Your task to perform on an android device: turn on location history Image 0: 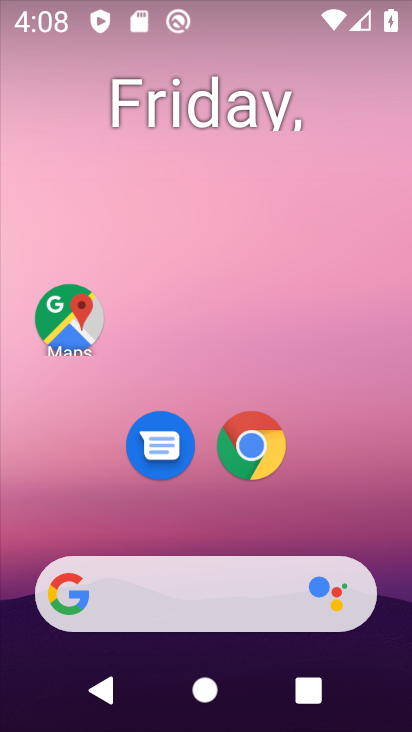
Step 0: drag from (327, 519) to (326, 156)
Your task to perform on an android device: turn on location history Image 1: 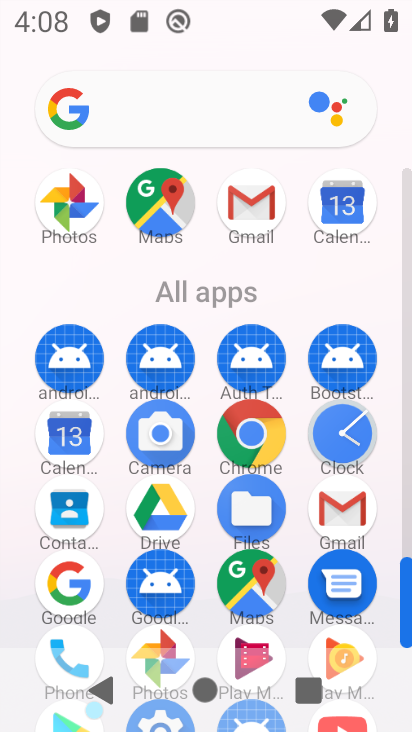
Step 1: drag from (327, 536) to (273, 74)
Your task to perform on an android device: turn on location history Image 2: 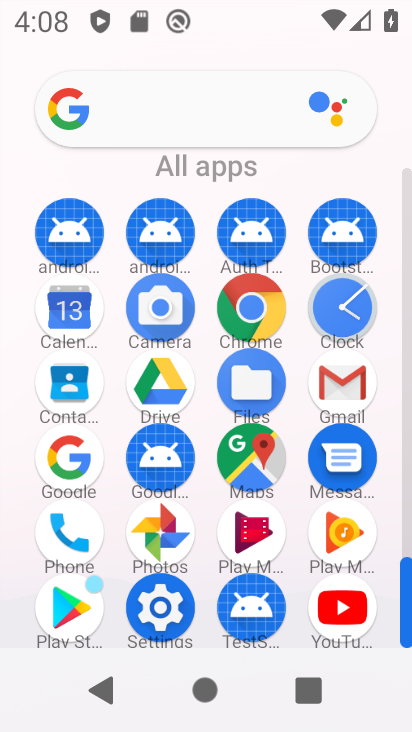
Step 2: click (169, 628)
Your task to perform on an android device: turn on location history Image 3: 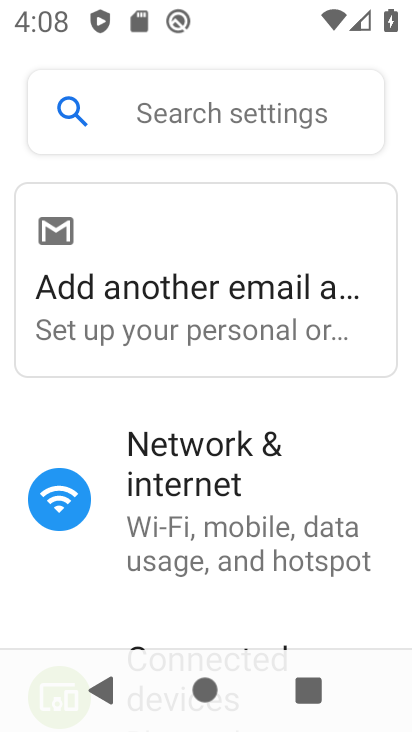
Step 3: drag from (189, 534) to (228, 115)
Your task to perform on an android device: turn on location history Image 4: 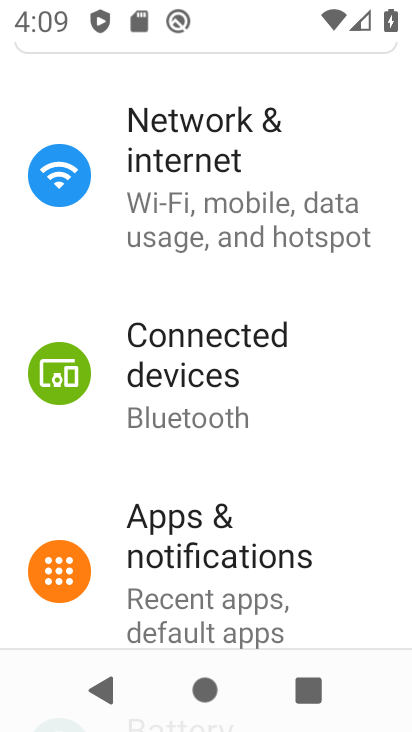
Step 4: drag from (283, 489) to (290, 67)
Your task to perform on an android device: turn on location history Image 5: 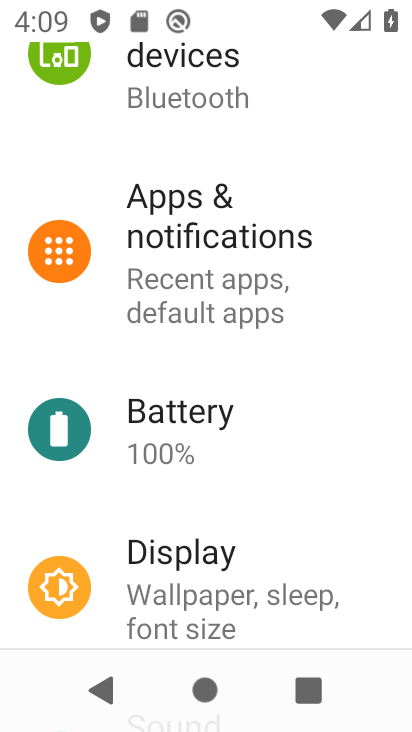
Step 5: drag from (230, 473) to (244, 214)
Your task to perform on an android device: turn on location history Image 6: 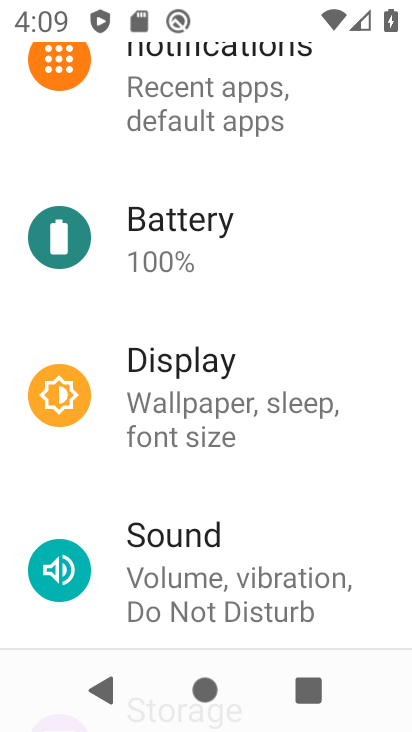
Step 6: drag from (207, 462) to (250, 45)
Your task to perform on an android device: turn on location history Image 7: 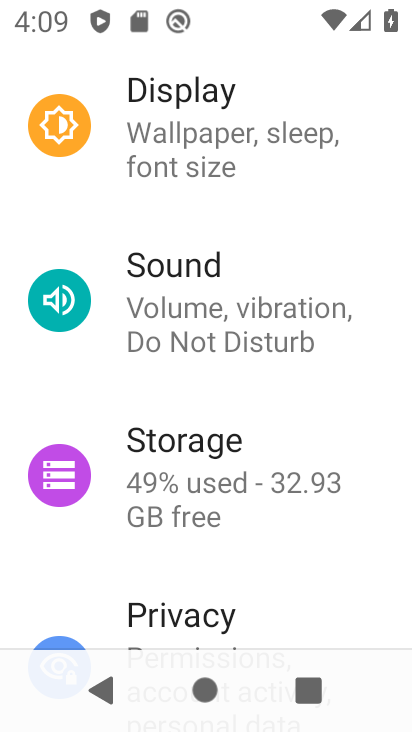
Step 7: drag from (173, 465) to (238, 148)
Your task to perform on an android device: turn on location history Image 8: 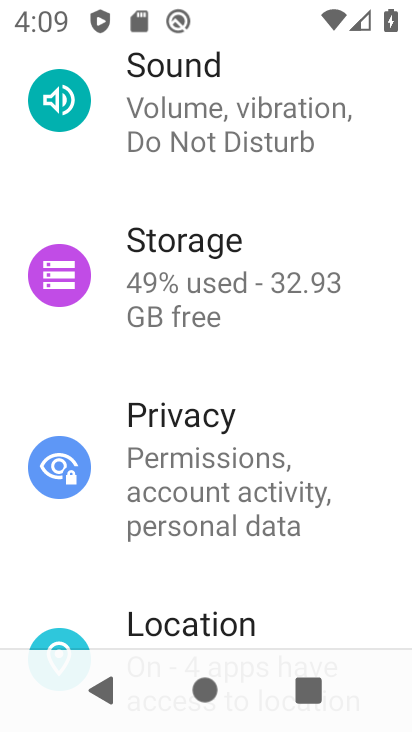
Step 8: click (179, 621)
Your task to perform on an android device: turn on location history Image 9: 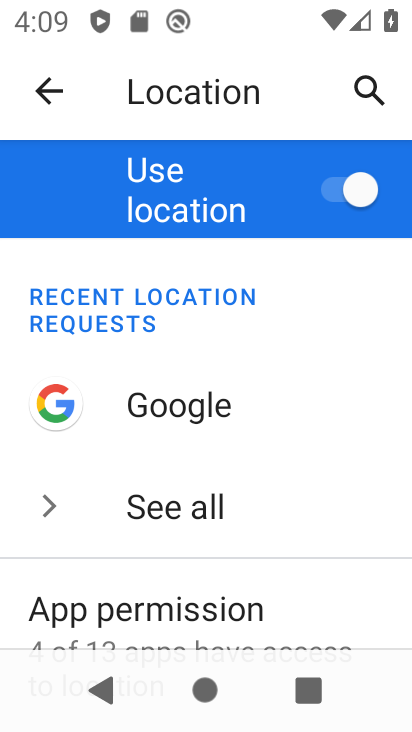
Step 9: drag from (301, 402) to (346, 76)
Your task to perform on an android device: turn on location history Image 10: 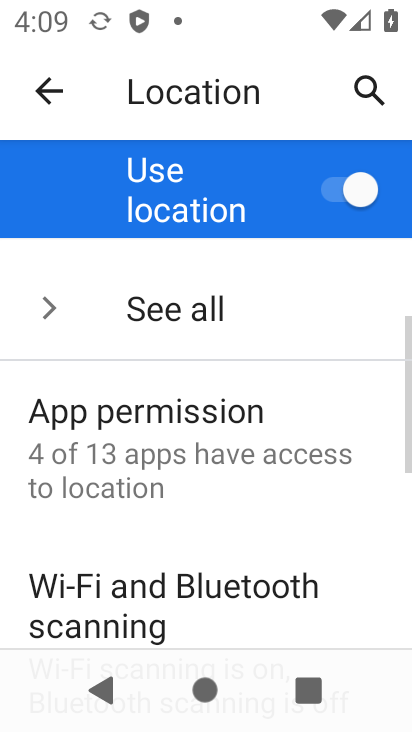
Step 10: drag from (180, 593) to (263, 171)
Your task to perform on an android device: turn on location history Image 11: 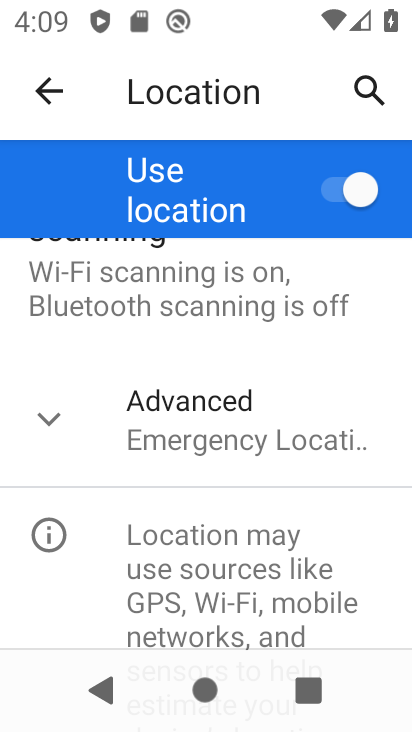
Step 11: drag from (158, 638) to (232, 361)
Your task to perform on an android device: turn on location history Image 12: 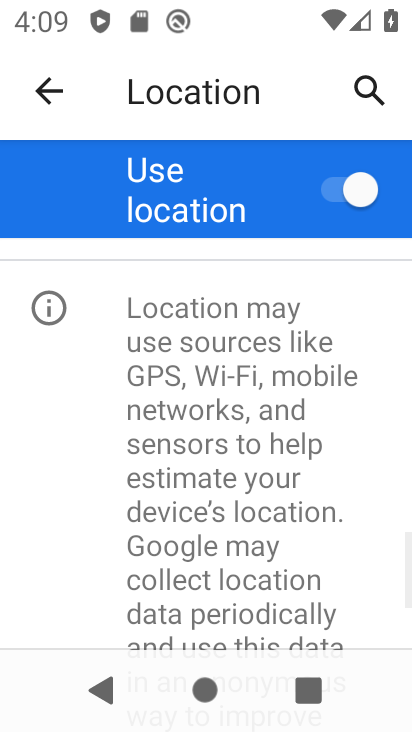
Step 12: drag from (197, 267) to (185, 474)
Your task to perform on an android device: turn on location history Image 13: 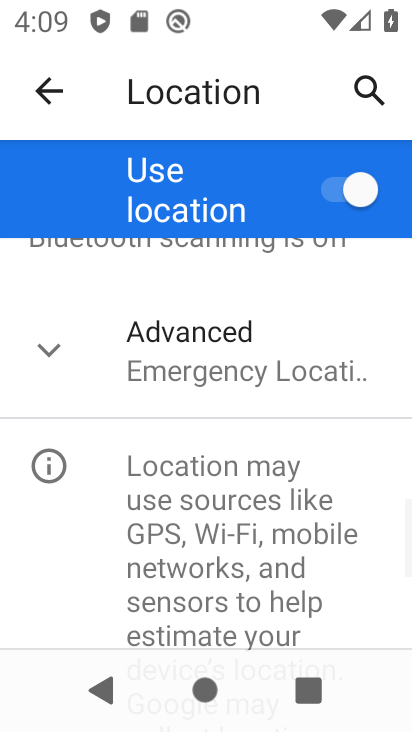
Step 13: click (202, 349)
Your task to perform on an android device: turn on location history Image 14: 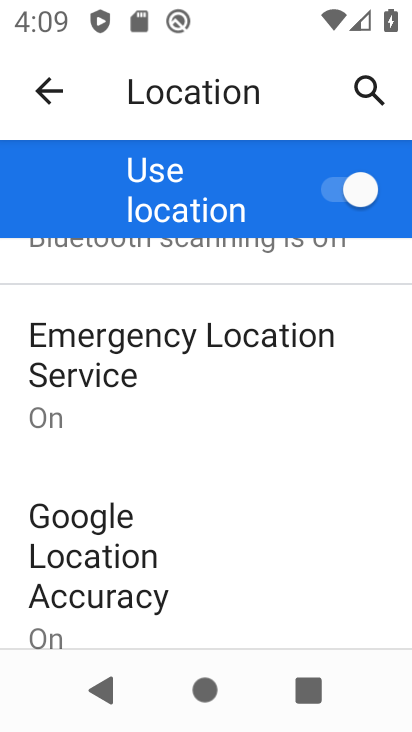
Step 14: drag from (215, 551) to (276, 231)
Your task to perform on an android device: turn on location history Image 15: 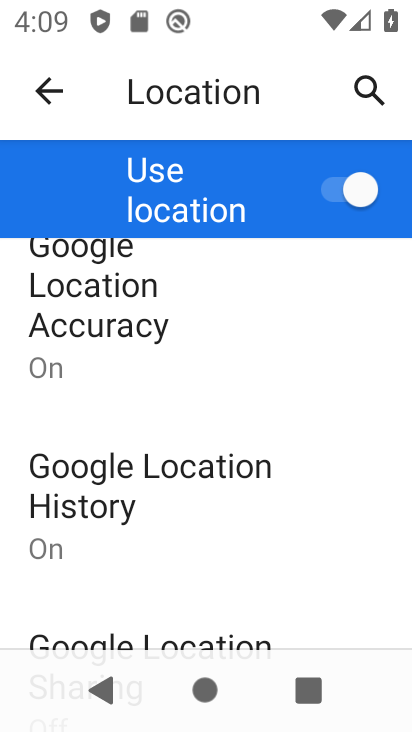
Step 15: click (165, 455)
Your task to perform on an android device: turn on location history Image 16: 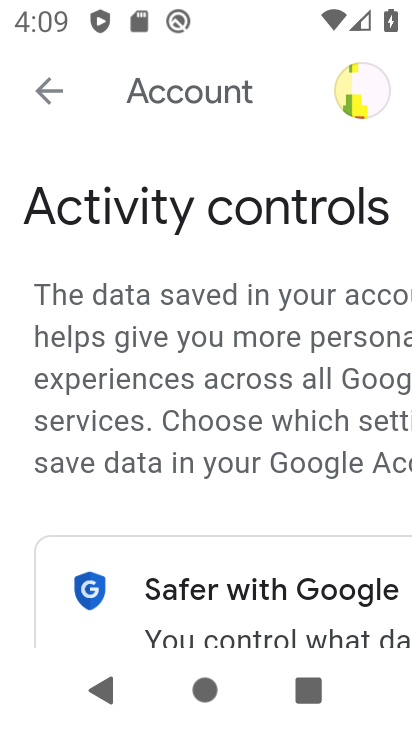
Step 16: task complete